Your task to perform on an android device: Search for a new lipgloss Image 0: 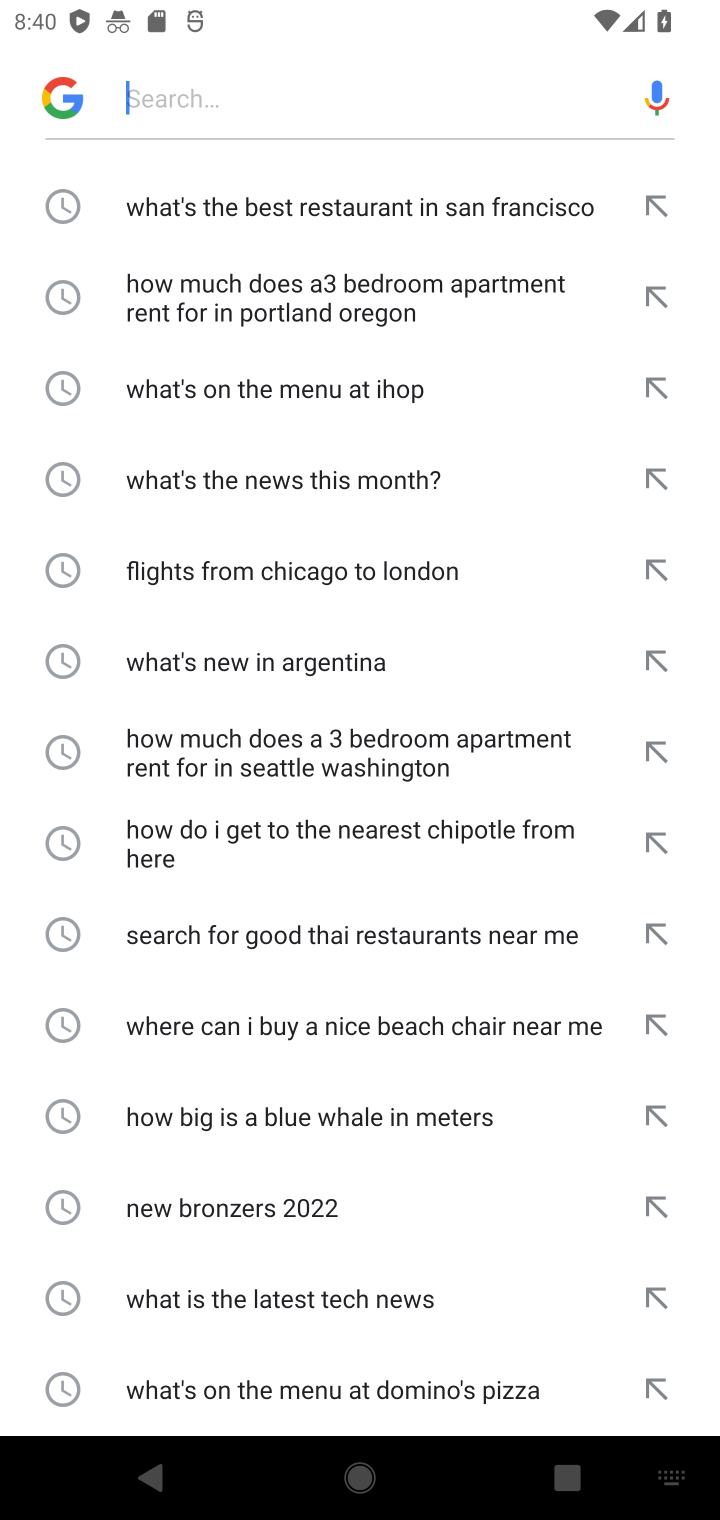
Step 0: click (157, 123)
Your task to perform on an android device: Search for a new lipgloss Image 1: 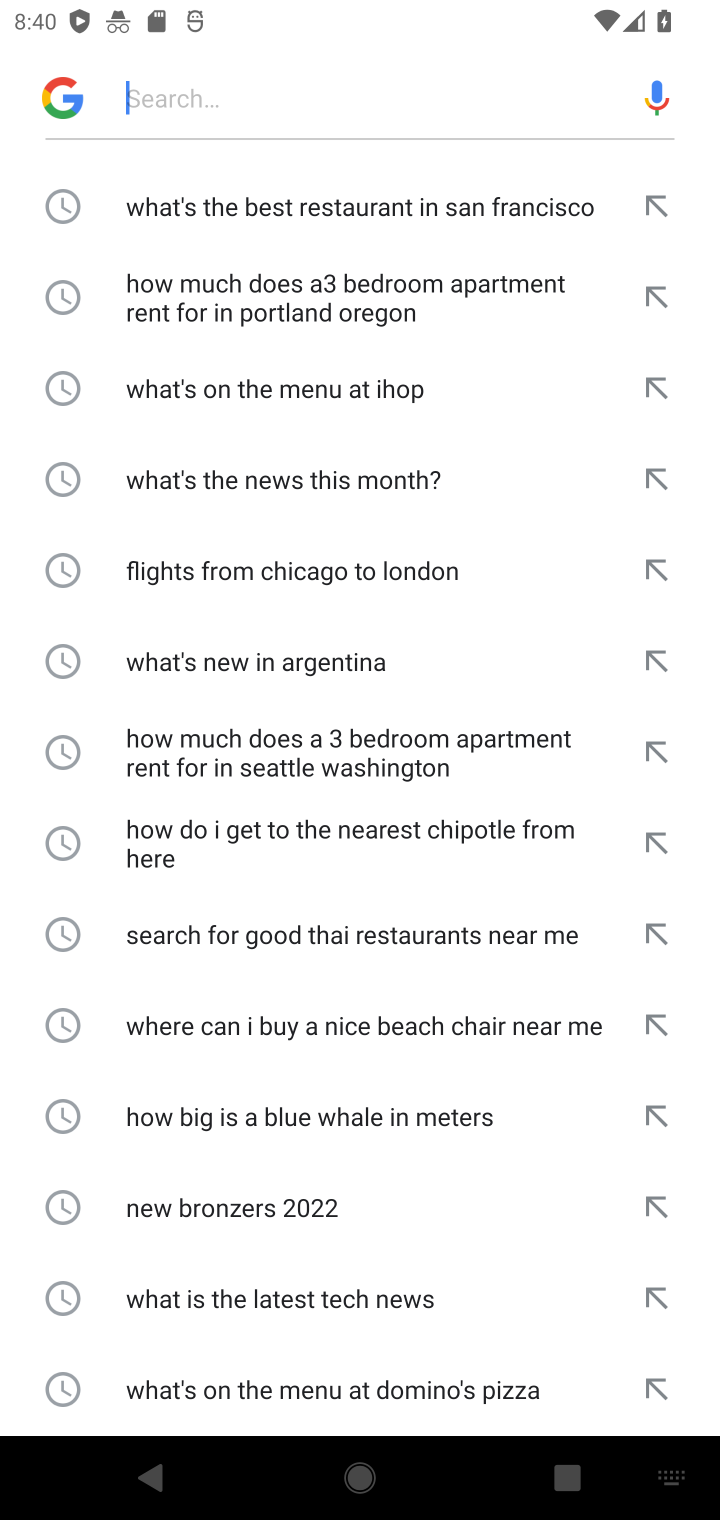
Step 1: type "new lipgloss"
Your task to perform on an android device: Search for a new lipgloss Image 2: 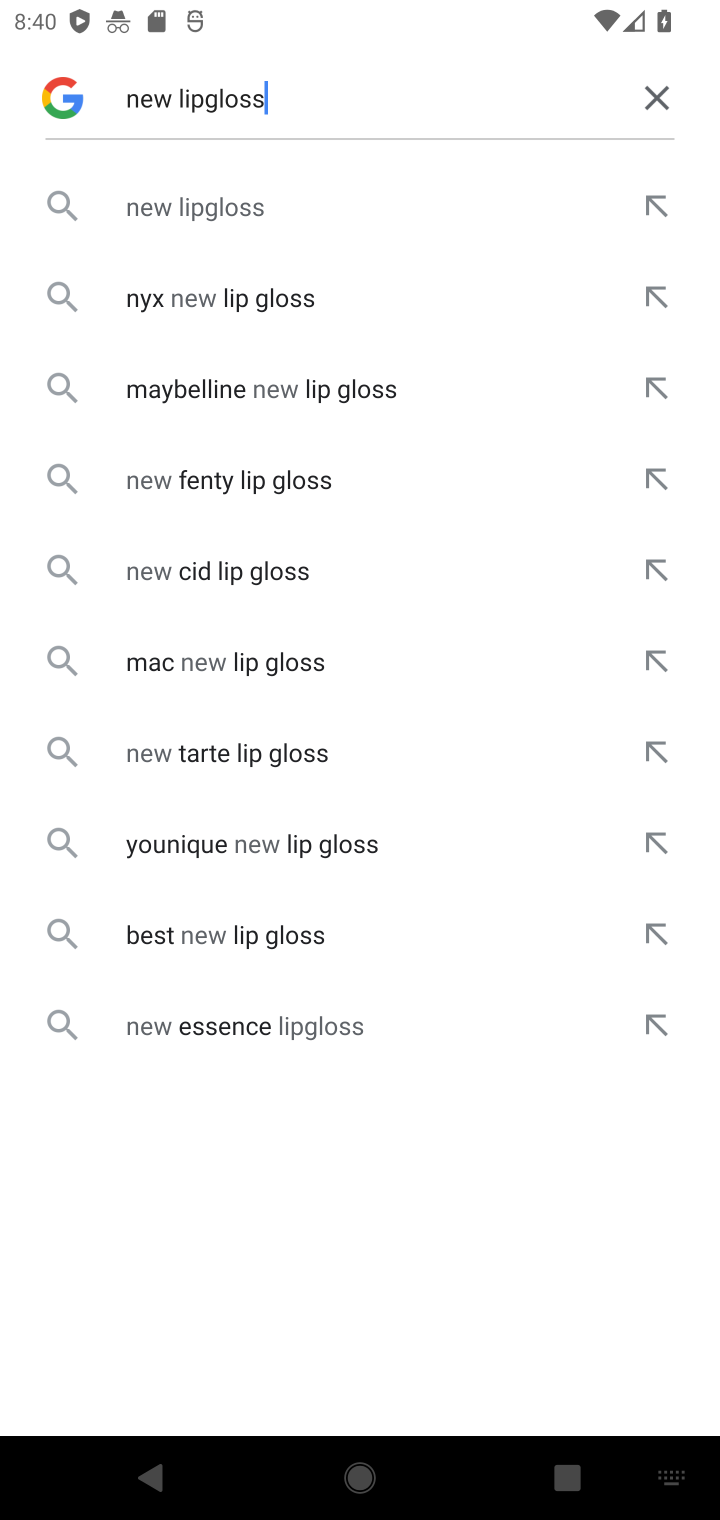
Step 2: click (283, 226)
Your task to perform on an android device: Search for a new lipgloss Image 3: 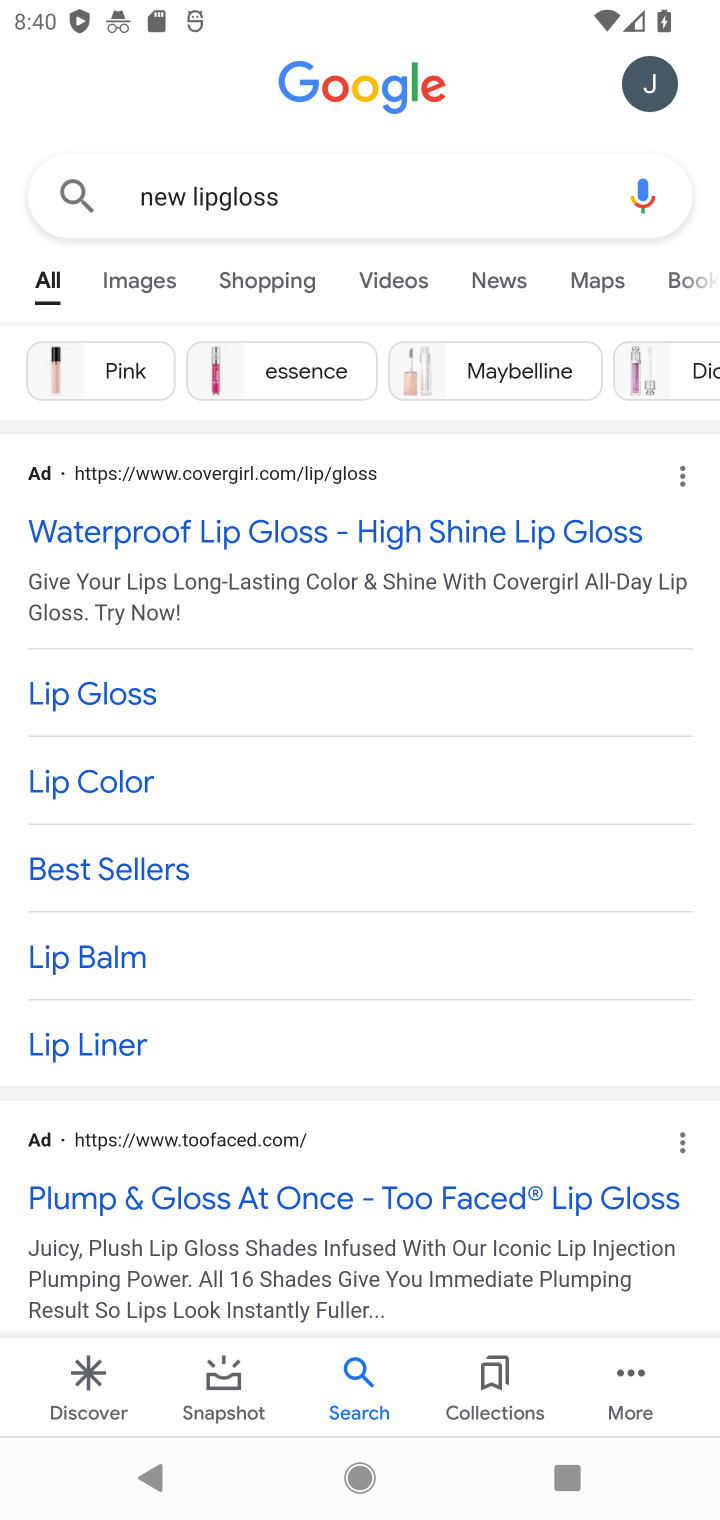
Step 3: task complete